Your task to perform on an android device: refresh tabs in the chrome app Image 0: 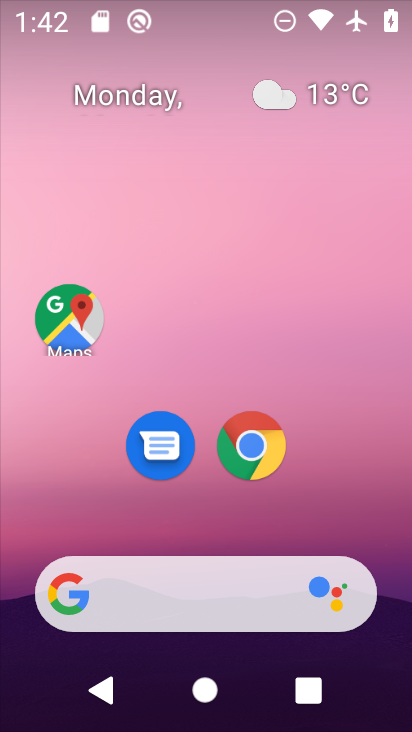
Step 0: drag from (398, 617) to (298, 52)
Your task to perform on an android device: refresh tabs in the chrome app Image 1: 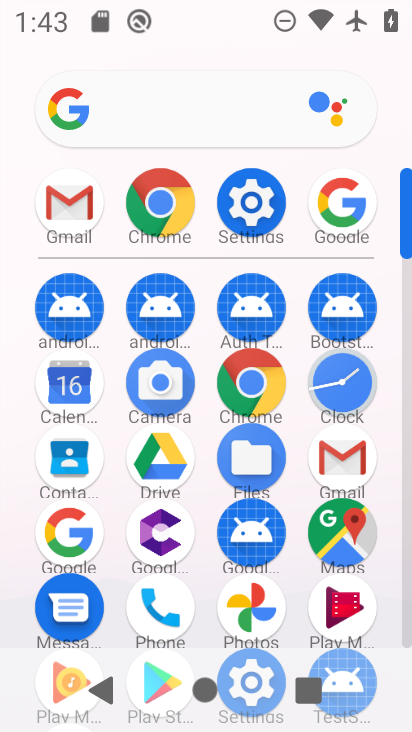
Step 1: click (263, 390)
Your task to perform on an android device: refresh tabs in the chrome app Image 2: 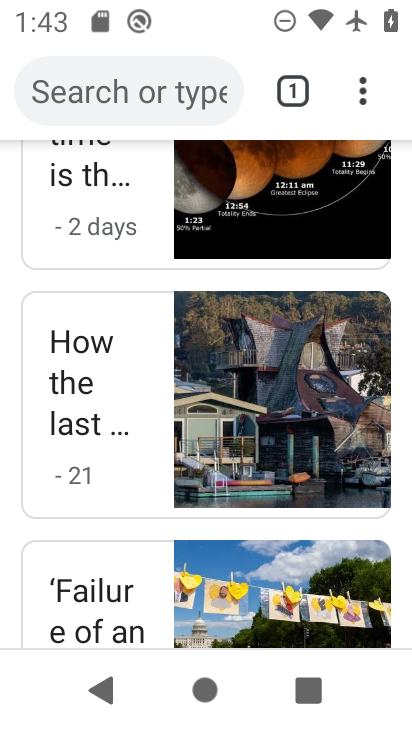
Step 2: click (362, 92)
Your task to perform on an android device: refresh tabs in the chrome app Image 3: 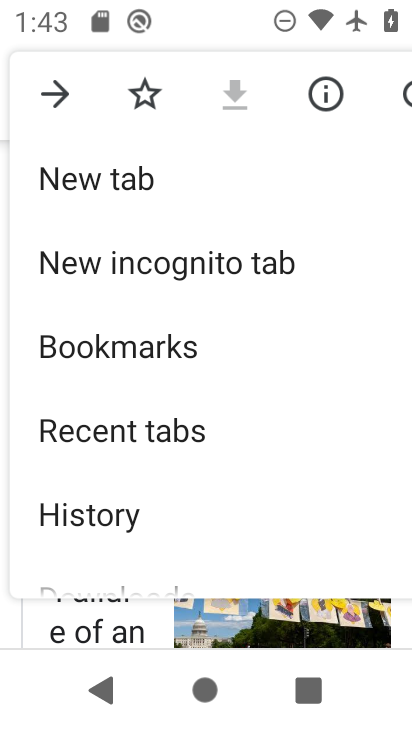
Step 3: click (404, 98)
Your task to perform on an android device: refresh tabs in the chrome app Image 4: 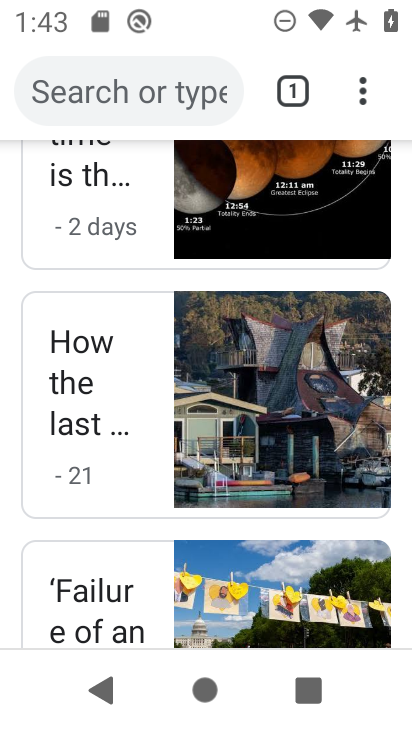
Step 4: task complete